Your task to perform on an android device: turn vacation reply on in the gmail app Image 0: 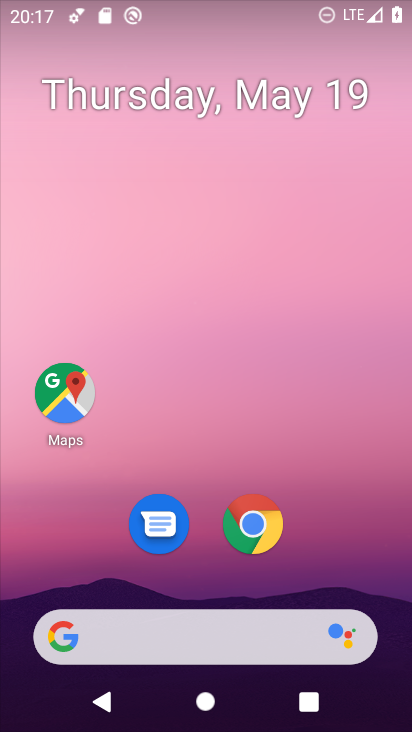
Step 0: drag from (336, 470) to (308, 37)
Your task to perform on an android device: turn vacation reply on in the gmail app Image 1: 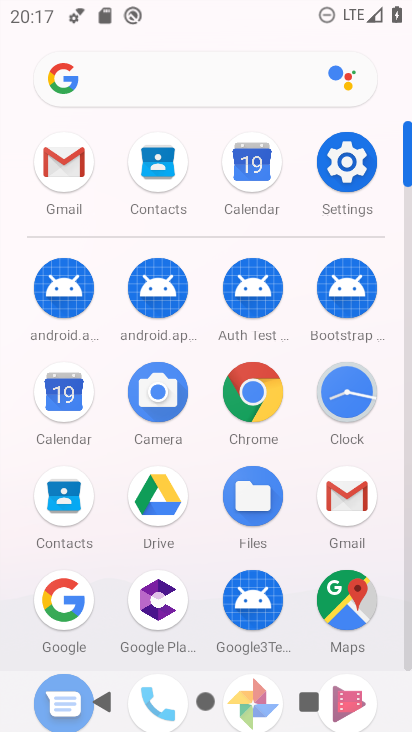
Step 1: click (59, 164)
Your task to perform on an android device: turn vacation reply on in the gmail app Image 2: 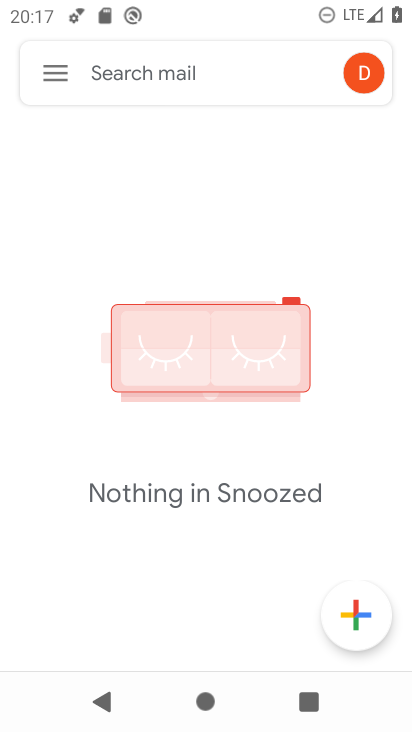
Step 2: click (58, 65)
Your task to perform on an android device: turn vacation reply on in the gmail app Image 3: 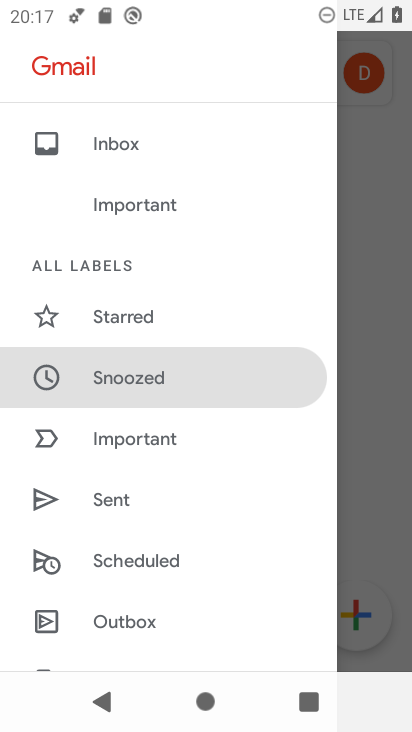
Step 3: drag from (154, 492) to (140, 131)
Your task to perform on an android device: turn vacation reply on in the gmail app Image 4: 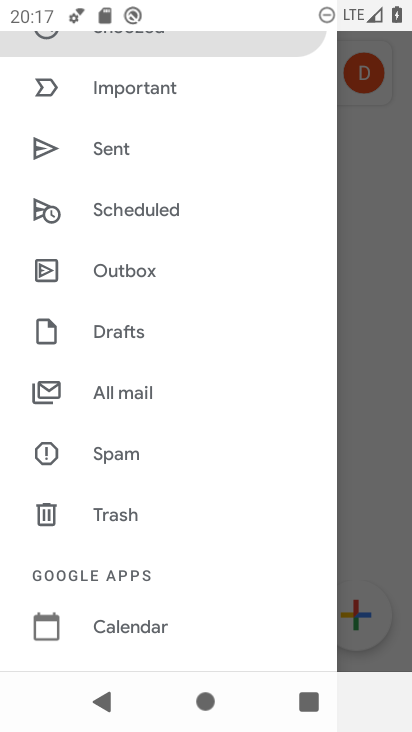
Step 4: drag from (145, 500) to (161, 167)
Your task to perform on an android device: turn vacation reply on in the gmail app Image 5: 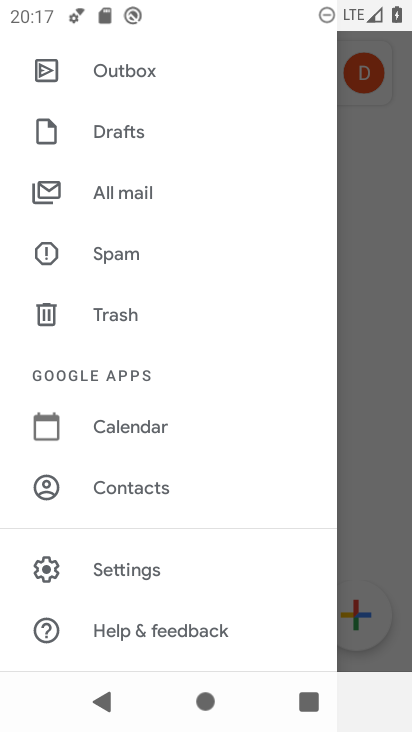
Step 5: click (139, 558)
Your task to perform on an android device: turn vacation reply on in the gmail app Image 6: 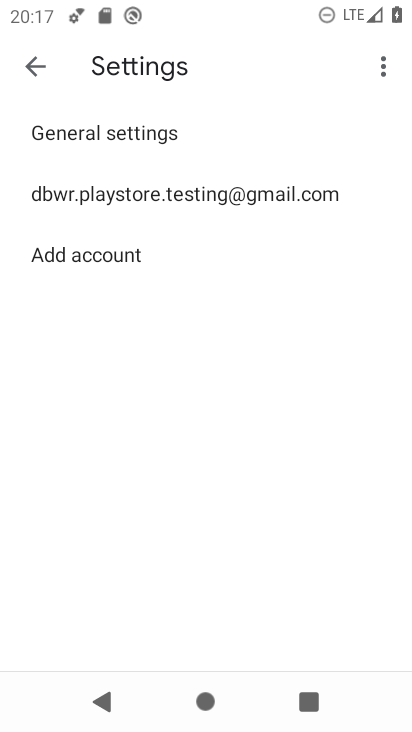
Step 6: click (211, 196)
Your task to perform on an android device: turn vacation reply on in the gmail app Image 7: 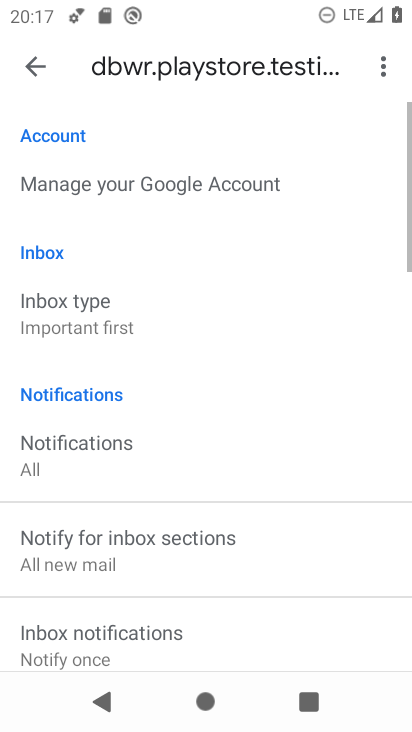
Step 7: drag from (199, 434) to (225, 135)
Your task to perform on an android device: turn vacation reply on in the gmail app Image 8: 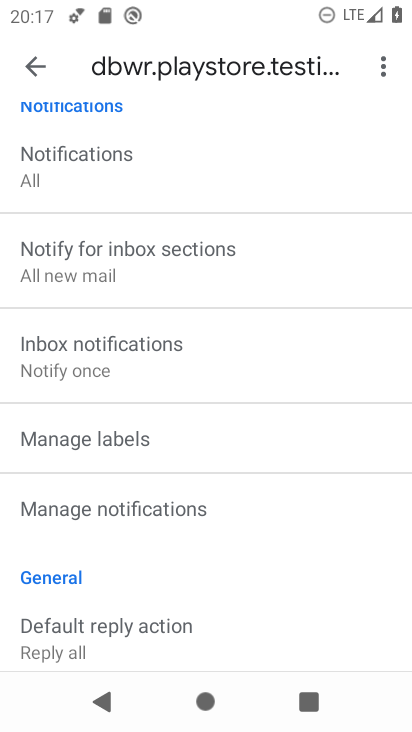
Step 8: drag from (226, 547) to (250, 105)
Your task to perform on an android device: turn vacation reply on in the gmail app Image 9: 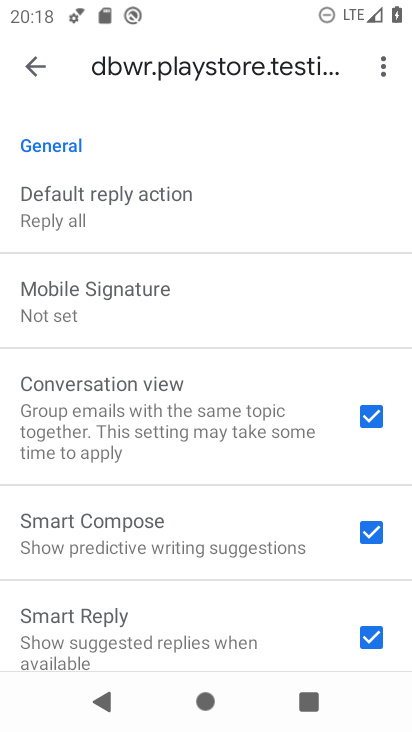
Step 9: drag from (198, 511) to (216, 153)
Your task to perform on an android device: turn vacation reply on in the gmail app Image 10: 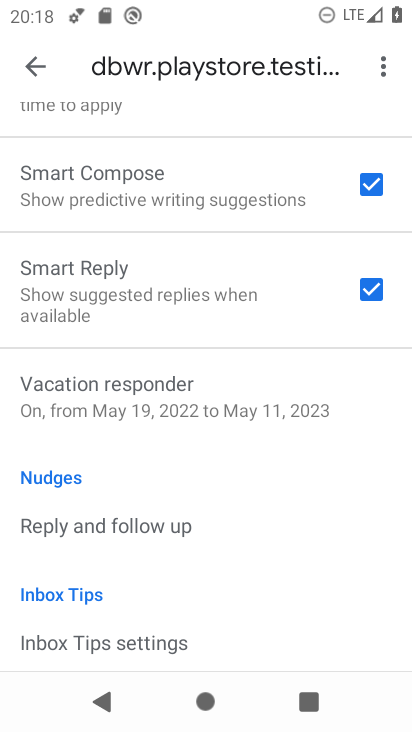
Step 10: click (180, 391)
Your task to perform on an android device: turn vacation reply on in the gmail app Image 11: 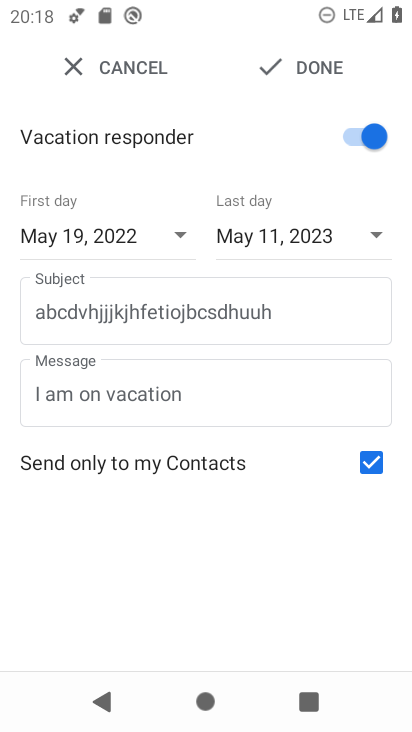
Step 11: task complete